Your task to perform on an android device: Go to display settings Image 0: 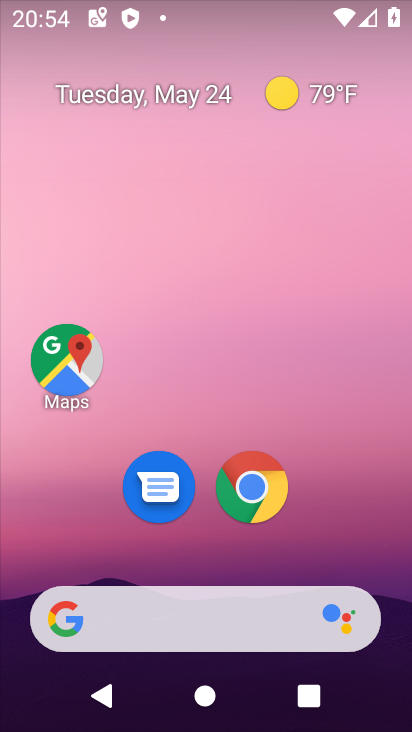
Step 0: press home button
Your task to perform on an android device: Go to display settings Image 1: 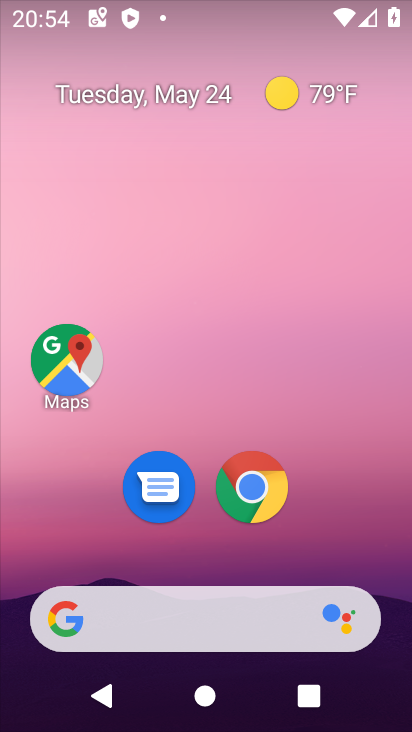
Step 1: drag from (333, 510) to (402, 7)
Your task to perform on an android device: Go to display settings Image 2: 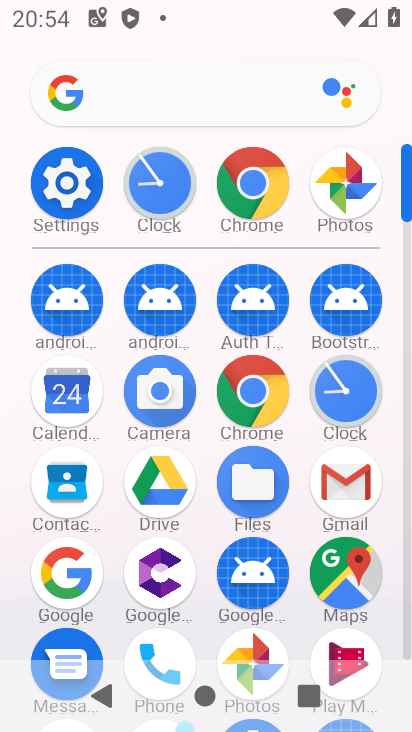
Step 2: click (82, 166)
Your task to perform on an android device: Go to display settings Image 3: 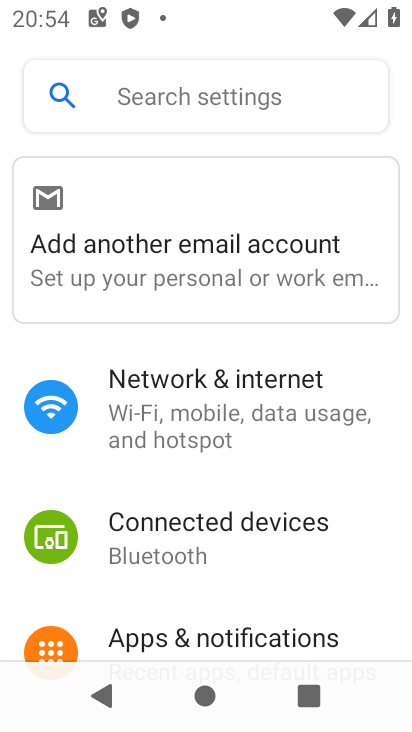
Step 3: drag from (316, 484) to (259, 118)
Your task to perform on an android device: Go to display settings Image 4: 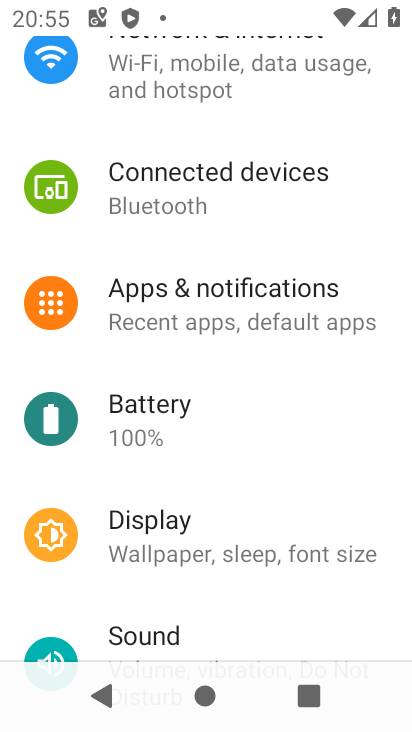
Step 4: drag from (210, 614) to (218, 481)
Your task to perform on an android device: Go to display settings Image 5: 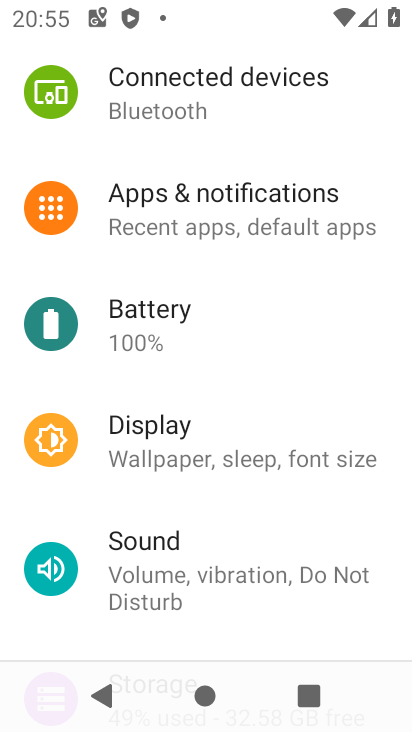
Step 5: click (103, 401)
Your task to perform on an android device: Go to display settings Image 6: 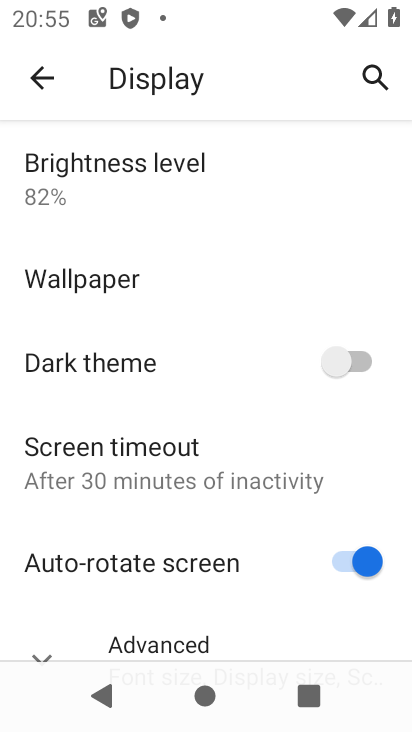
Step 6: task complete